Your task to perform on an android device: turn off translation in the chrome app Image 0: 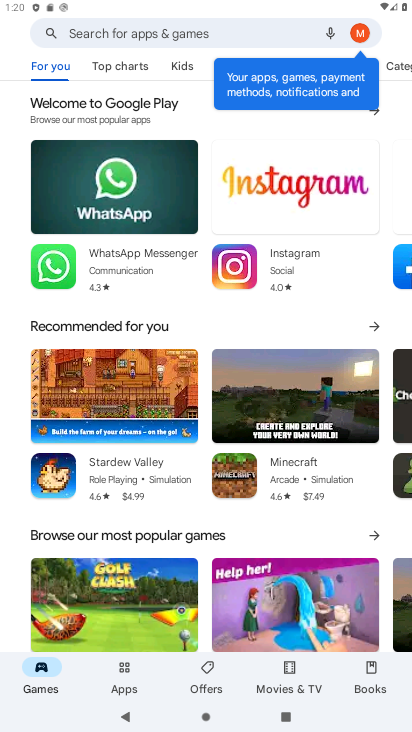
Step 0: press home button
Your task to perform on an android device: turn off translation in the chrome app Image 1: 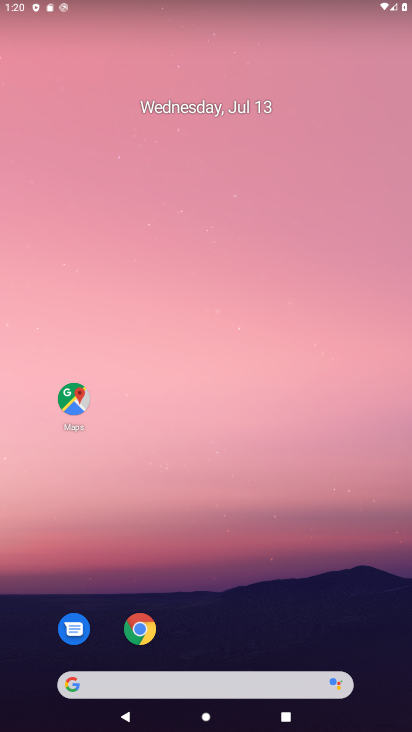
Step 1: click (125, 617)
Your task to perform on an android device: turn off translation in the chrome app Image 2: 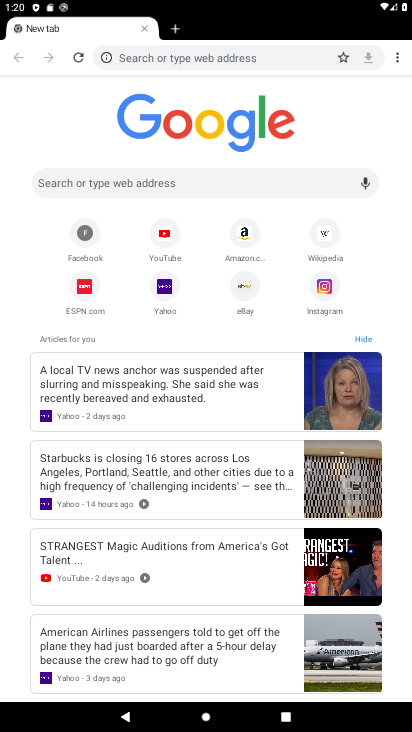
Step 2: click (394, 66)
Your task to perform on an android device: turn off translation in the chrome app Image 3: 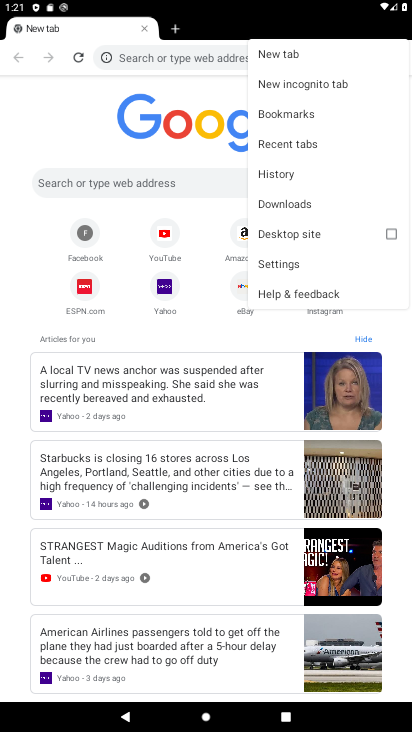
Step 3: click (295, 262)
Your task to perform on an android device: turn off translation in the chrome app Image 4: 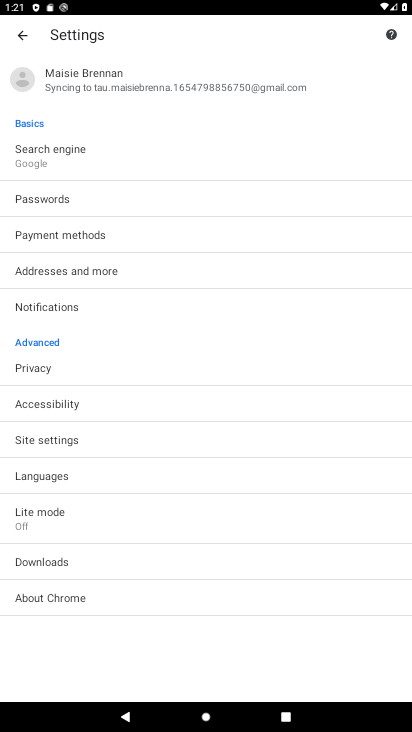
Step 4: click (155, 483)
Your task to perform on an android device: turn off translation in the chrome app Image 5: 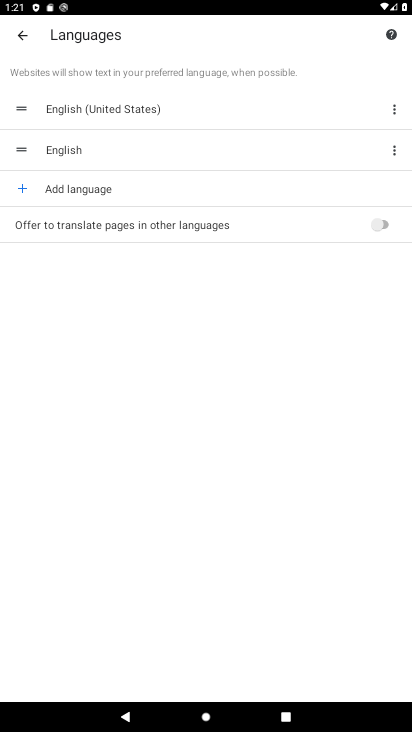
Step 5: click (386, 216)
Your task to perform on an android device: turn off translation in the chrome app Image 6: 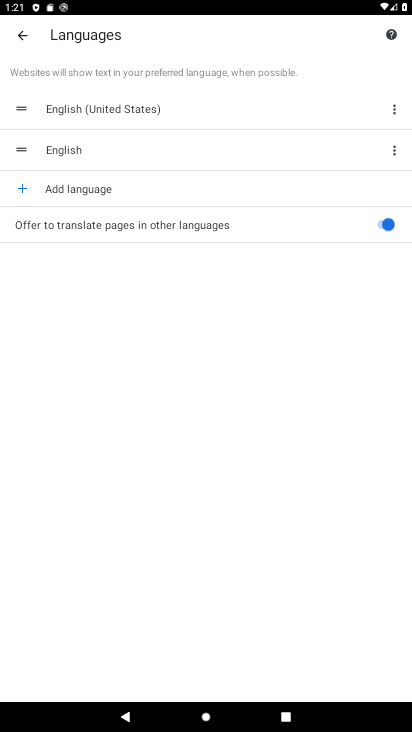
Step 6: task complete